Your task to perform on an android device: change your default location settings in chrome Image 0: 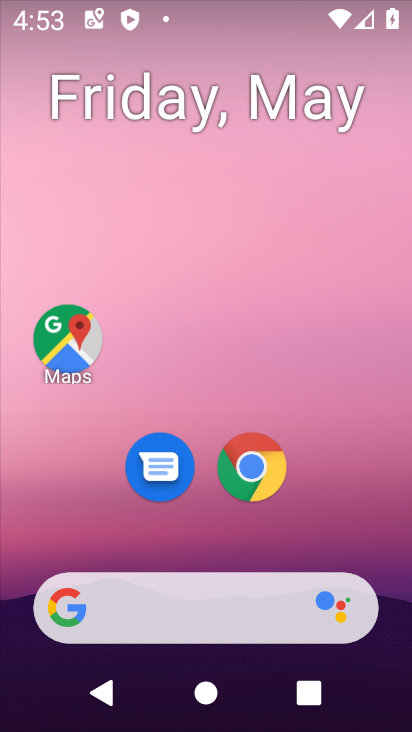
Step 0: click (261, 467)
Your task to perform on an android device: change your default location settings in chrome Image 1: 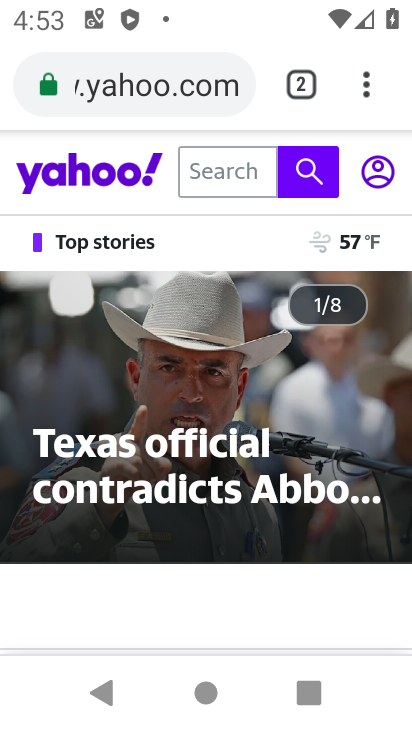
Step 1: click (368, 78)
Your task to perform on an android device: change your default location settings in chrome Image 2: 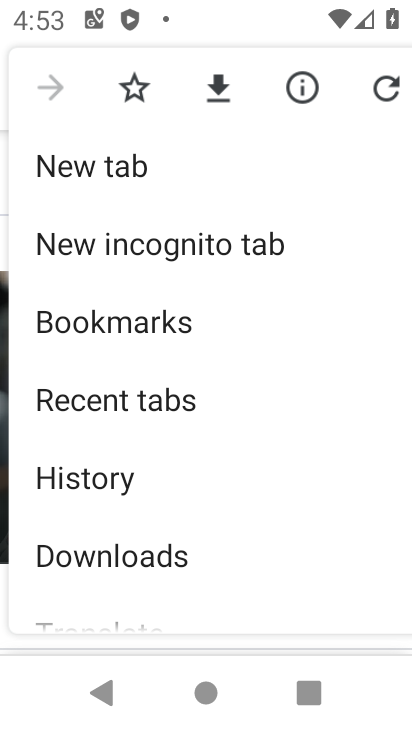
Step 2: drag from (178, 585) to (240, 188)
Your task to perform on an android device: change your default location settings in chrome Image 3: 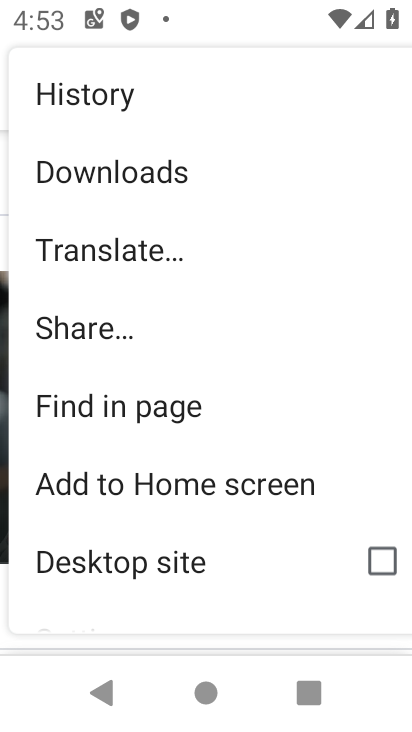
Step 3: drag from (231, 548) to (280, 198)
Your task to perform on an android device: change your default location settings in chrome Image 4: 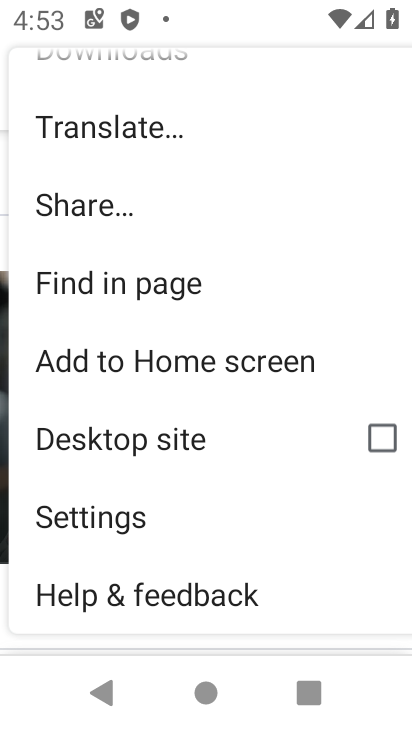
Step 4: click (94, 524)
Your task to perform on an android device: change your default location settings in chrome Image 5: 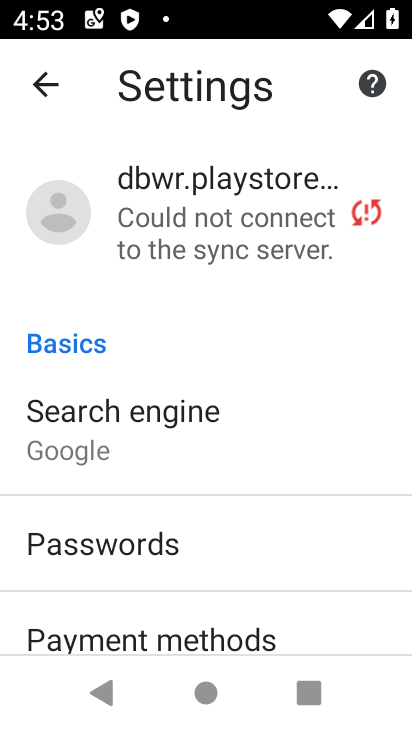
Step 5: drag from (230, 609) to (295, 140)
Your task to perform on an android device: change your default location settings in chrome Image 6: 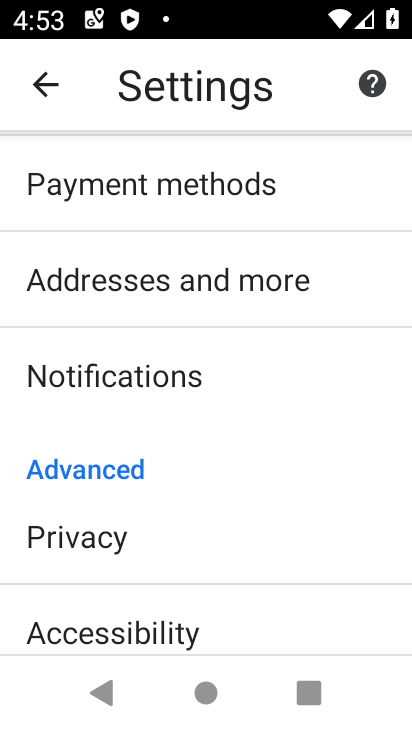
Step 6: drag from (245, 571) to (292, 246)
Your task to perform on an android device: change your default location settings in chrome Image 7: 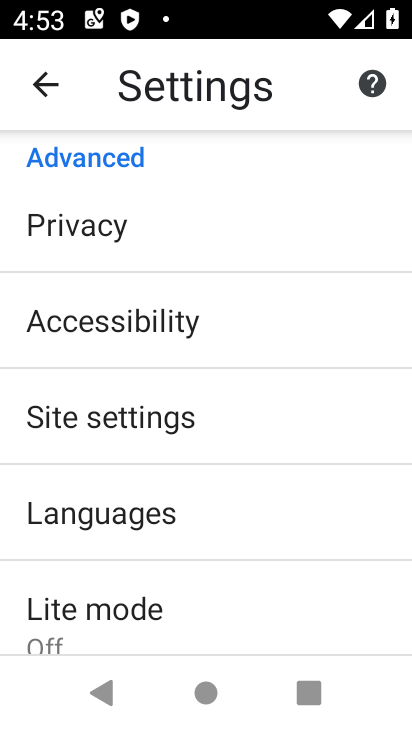
Step 7: click (174, 413)
Your task to perform on an android device: change your default location settings in chrome Image 8: 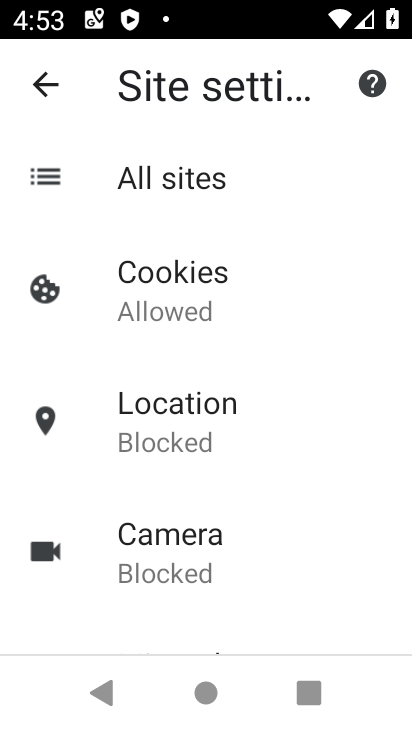
Step 8: click (194, 414)
Your task to perform on an android device: change your default location settings in chrome Image 9: 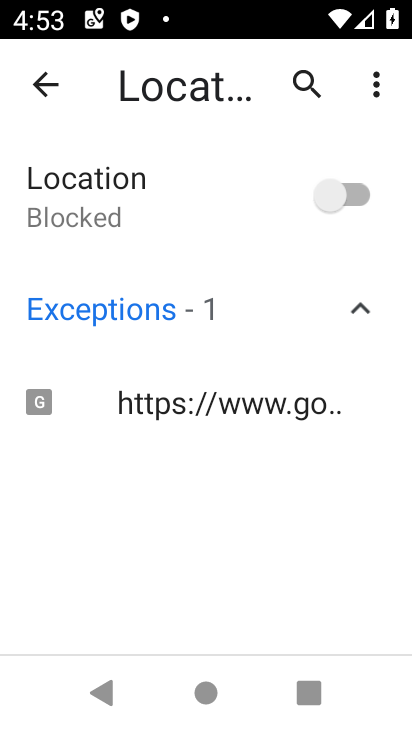
Step 9: click (371, 192)
Your task to perform on an android device: change your default location settings in chrome Image 10: 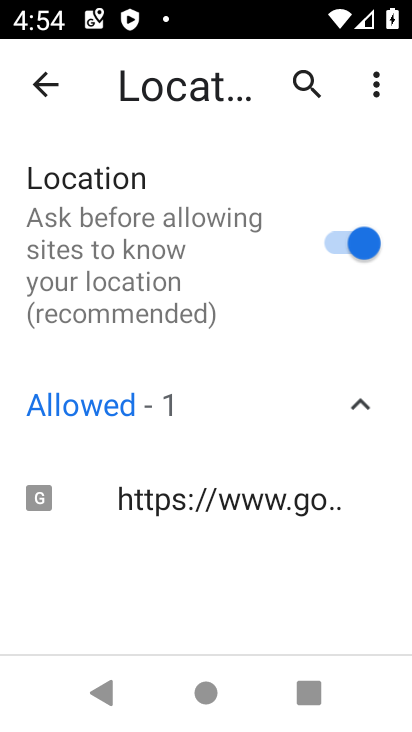
Step 10: task complete